Your task to perform on an android device: Play the last video I watched on Youtube Image 0: 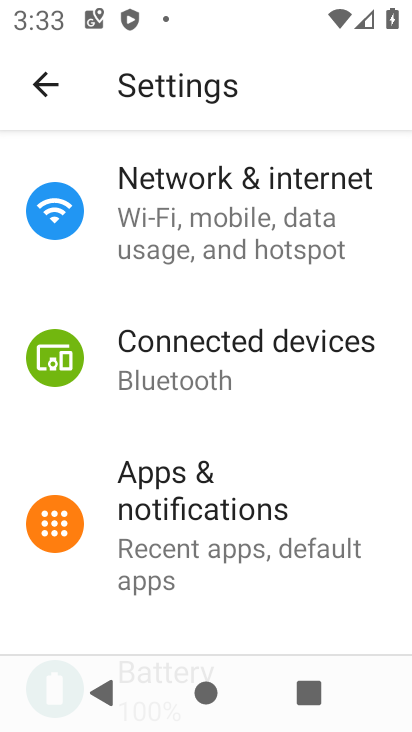
Step 0: press home button
Your task to perform on an android device: Play the last video I watched on Youtube Image 1: 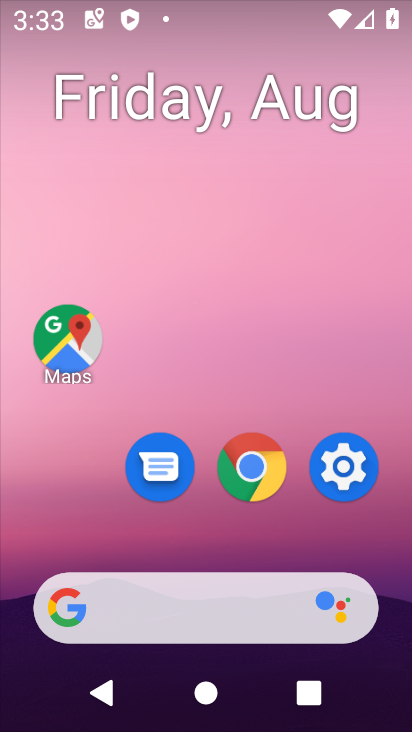
Step 1: drag from (323, 526) to (256, 22)
Your task to perform on an android device: Play the last video I watched on Youtube Image 2: 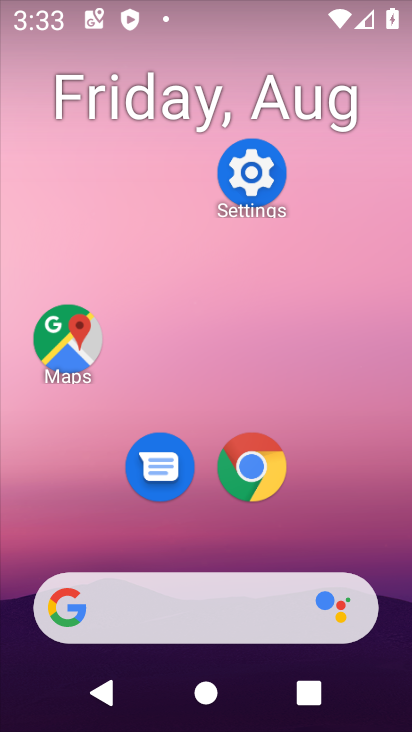
Step 2: drag from (344, 496) to (314, 42)
Your task to perform on an android device: Play the last video I watched on Youtube Image 3: 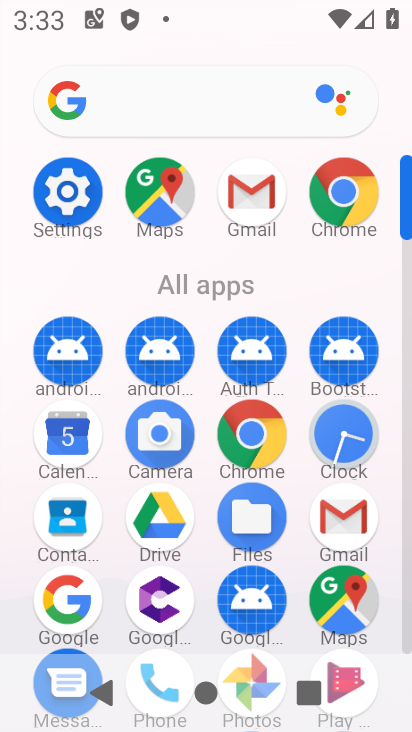
Step 3: drag from (287, 292) to (316, 1)
Your task to perform on an android device: Play the last video I watched on Youtube Image 4: 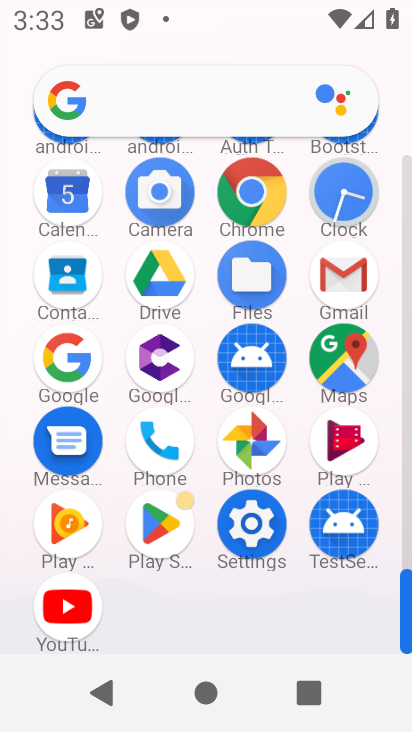
Step 4: click (63, 598)
Your task to perform on an android device: Play the last video I watched on Youtube Image 5: 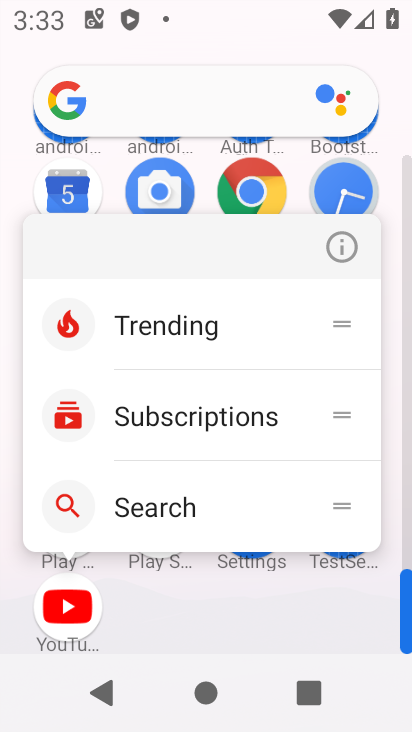
Step 5: click (63, 598)
Your task to perform on an android device: Play the last video I watched on Youtube Image 6: 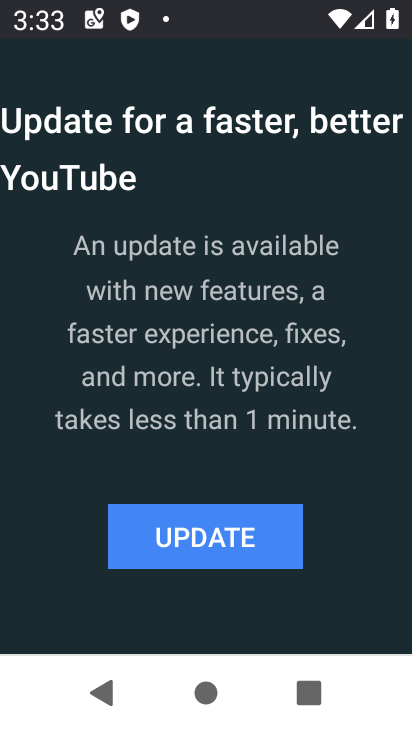
Step 6: click (248, 525)
Your task to perform on an android device: Play the last video I watched on Youtube Image 7: 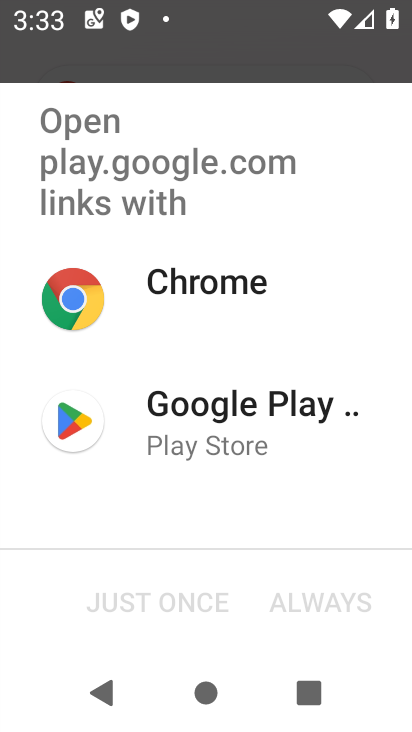
Step 7: click (213, 384)
Your task to perform on an android device: Play the last video I watched on Youtube Image 8: 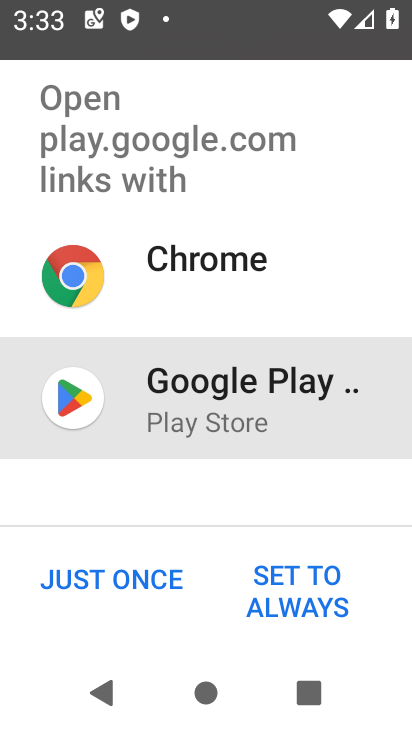
Step 8: click (167, 573)
Your task to perform on an android device: Play the last video I watched on Youtube Image 9: 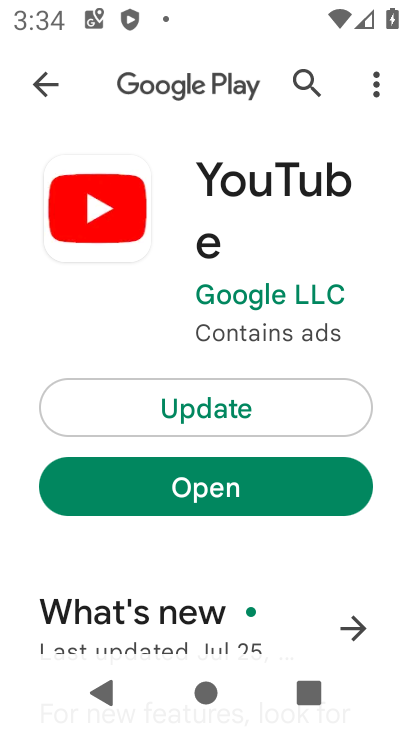
Step 9: click (271, 396)
Your task to perform on an android device: Play the last video I watched on Youtube Image 10: 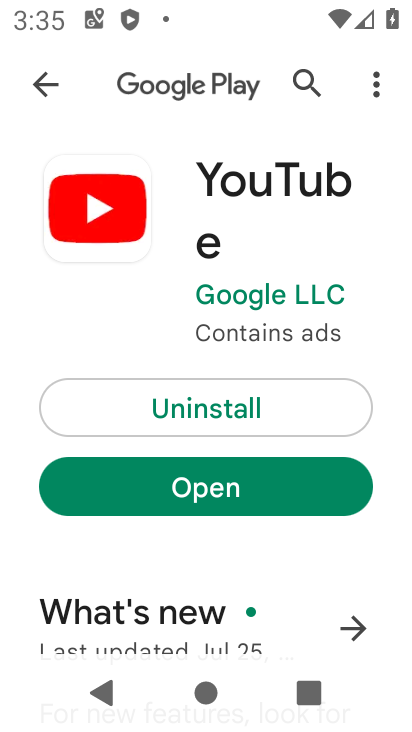
Step 10: click (254, 488)
Your task to perform on an android device: Play the last video I watched on Youtube Image 11: 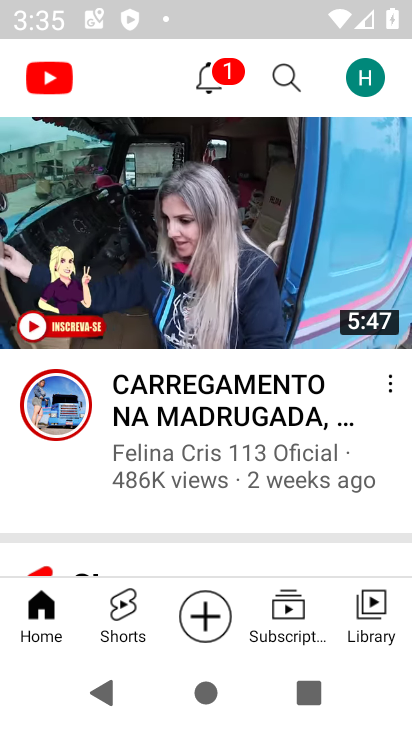
Step 11: click (381, 600)
Your task to perform on an android device: Play the last video I watched on Youtube Image 12: 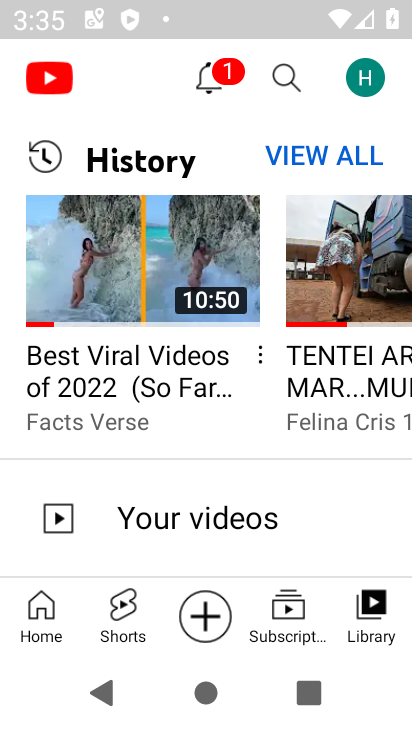
Step 12: click (125, 247)
Your task to perform on an android device: Play the last video I watched on Youtube Image 13: 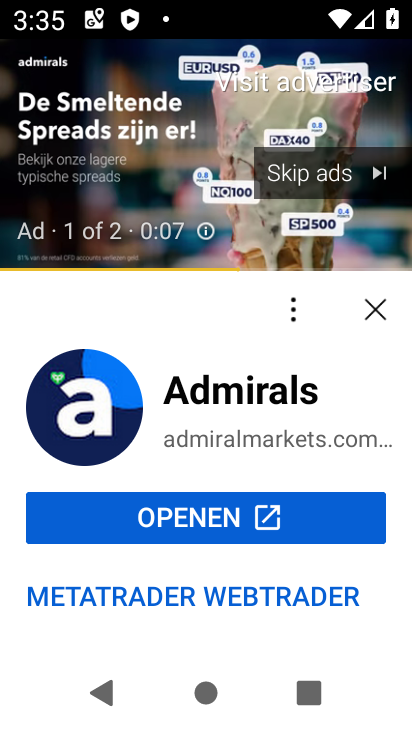
Step 13: click (344, 178)
Your task to perform on an android device: Play the last video I watched on Youtube Image 14: 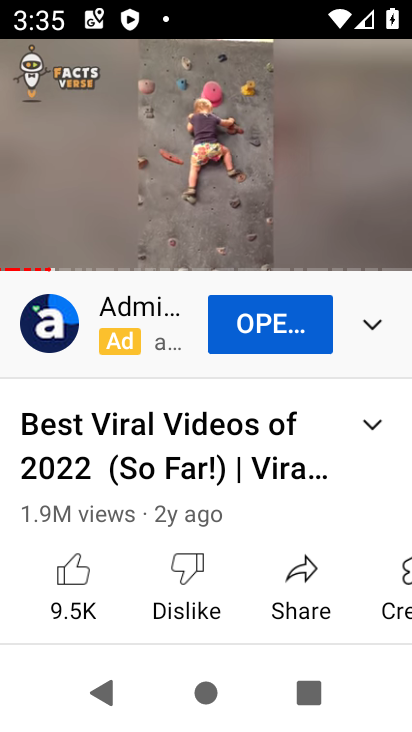
Step 14: task complete